Your task to perform on an android device: toggle wifi Image 0: 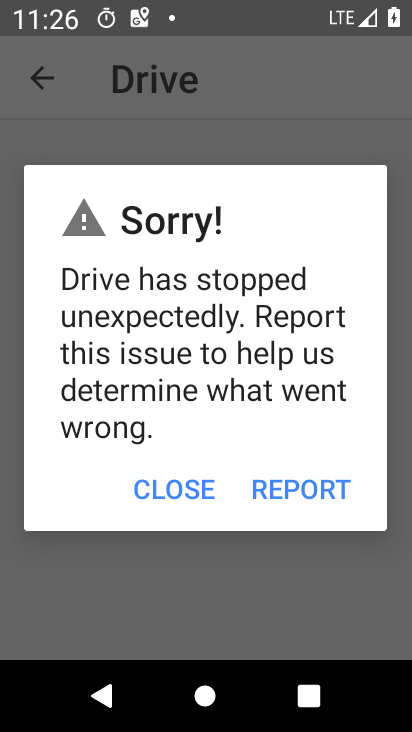
Step 0: click (131, 484)
Your task to perform on an android device: toggle wifi Image 1: 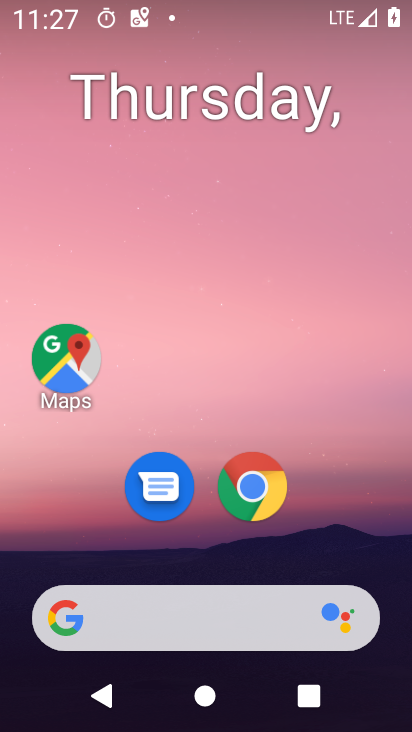
Step 1: drag from (167, 9) to (176, 628)
Your task to perform on an android device: toggle wifi Image 2: 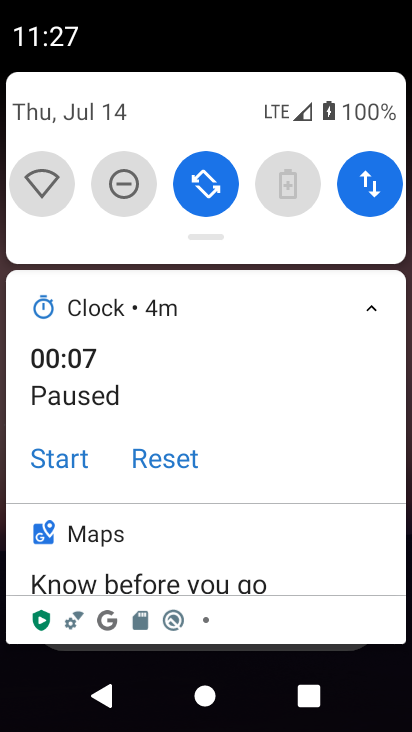
Step 2: click (37, 181)
Your task to perform on an android device: toggle wifi Image 3: 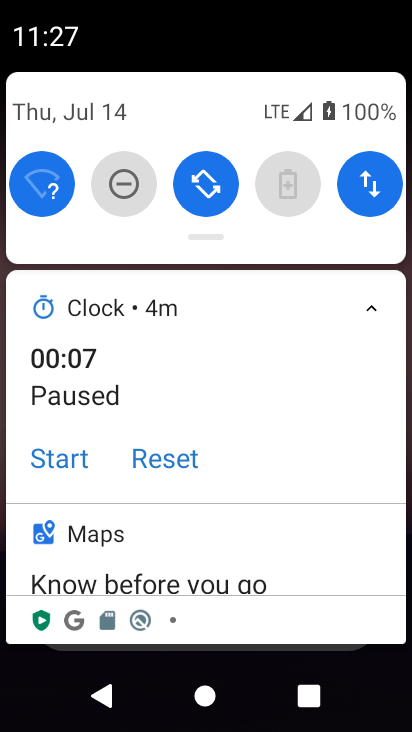
Step 3: task complete